Your task to perform on an android device: Show me popular games on the Play Store Image 0: 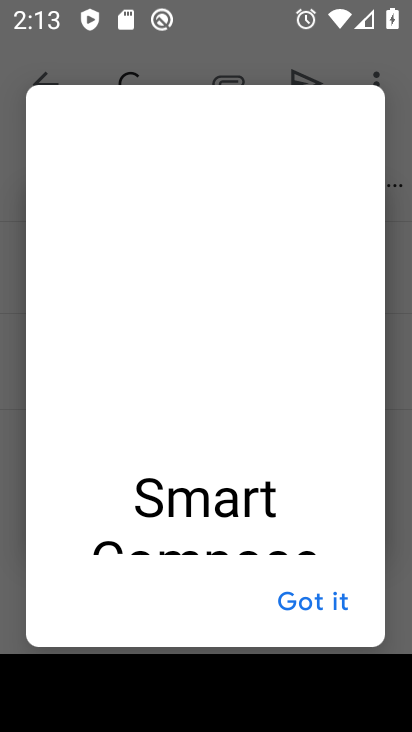
Step 0: press home button
Your task to perform on an android device: Show me popular games on the Play Store Image 1: 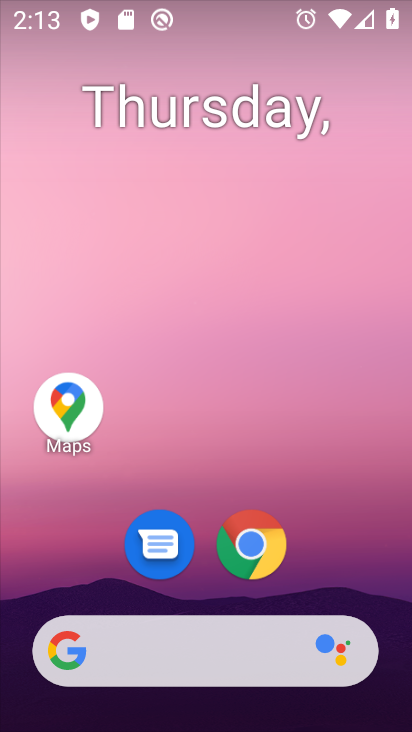
Step 1: drag from (328, 542) to (138, 114)
Your task to perform on an android device: Show me popular games on the Play Store Image 2: 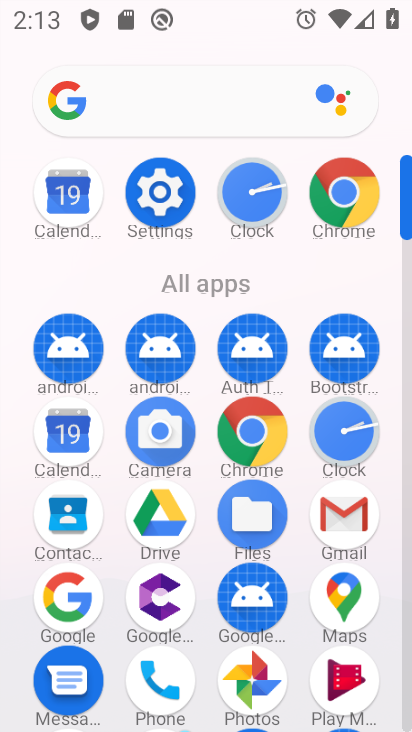
Step 2: drag from (291, 674) to (288, 309)
Your task to perform on an android device: Show me popular games on the Play Store Image 3: 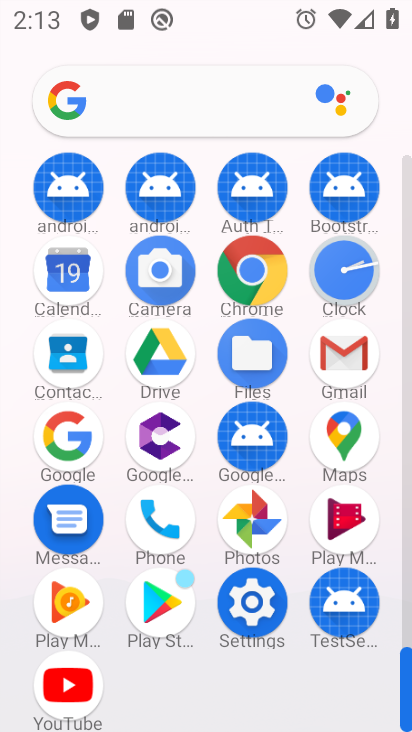
Step 3: click (162, 569)
Your task to perform on an android device: Show me popular games on the Play Store Image 4: 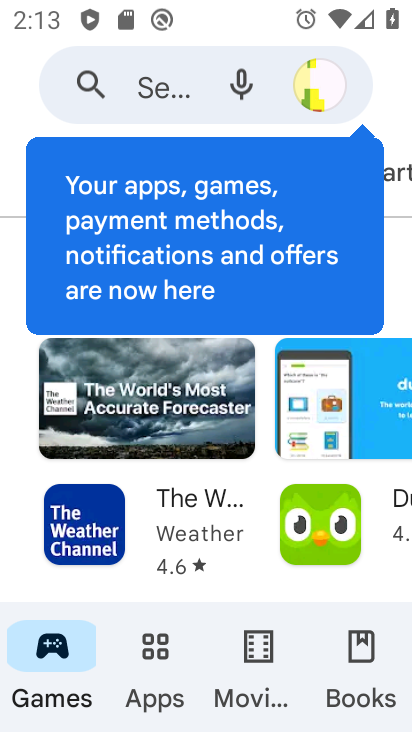
Step 4: drag from (105, 562) to (146, 507)
Your task to perform on an android device: Show me popular games on the Play Store Image 5: 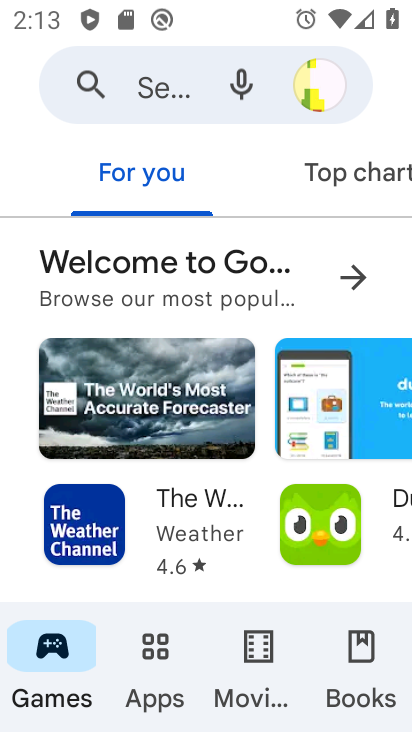
Step 5: click (349, 170)
Your task to perform on an android device: Show me popular games on the Play Store Image 6: 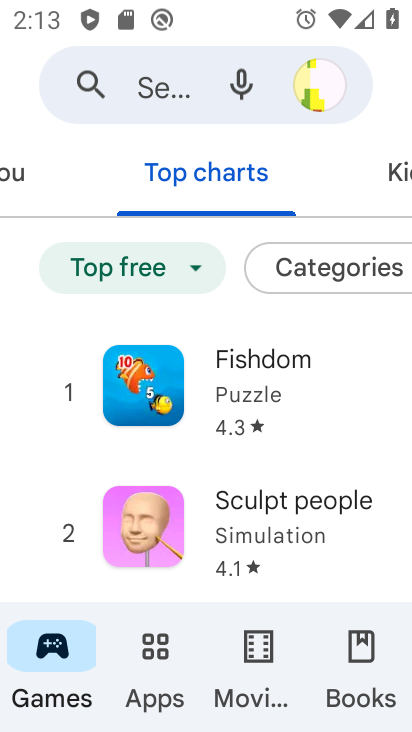
Step 6: click (176, 273)
Your task to perform on an android device: Show me popular games on the Play Store Image 7: 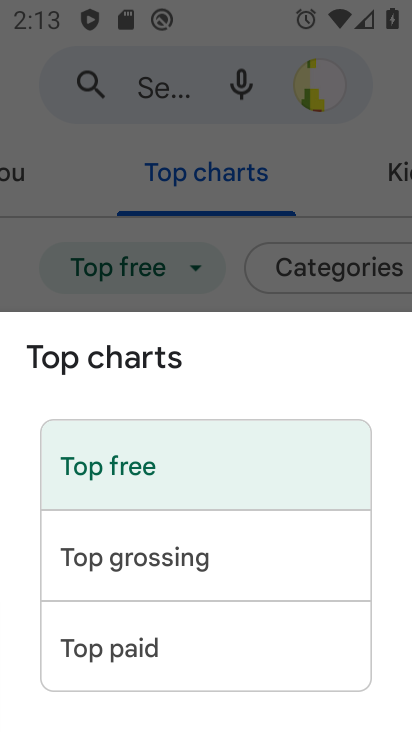
Step 7: click (149, 546)
Your task to perform on an android device: Show me popular games on the Play Store Image 8: 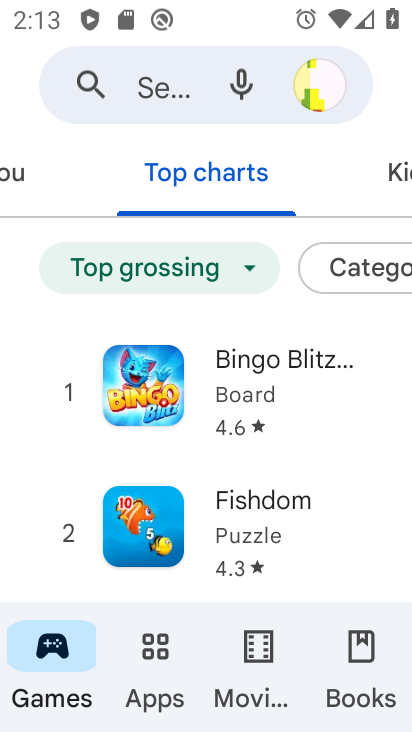
Step 8: task complete